Your task to perform on an android device: Go to display settings Image 0: 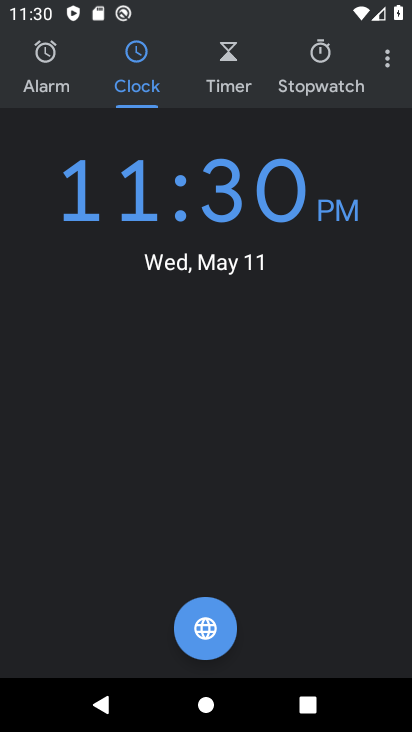
Step 0: press home button
Your task to perform on an android device: Go to display settings Image 1: 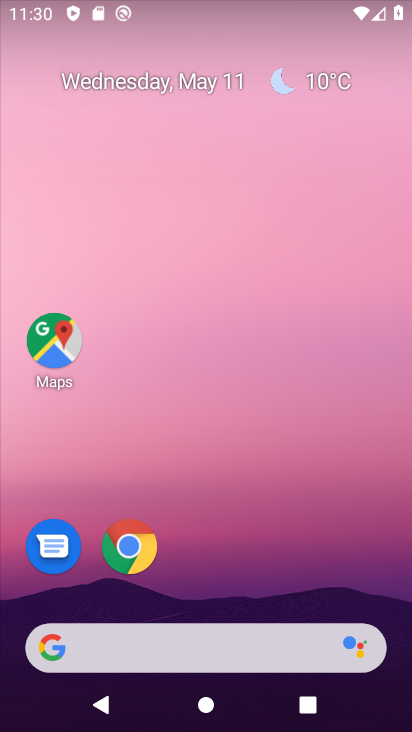
Step 1: drag from (238, 594) to (362, 19)
Your task to perform on an android device: Go to display settings Image 2: 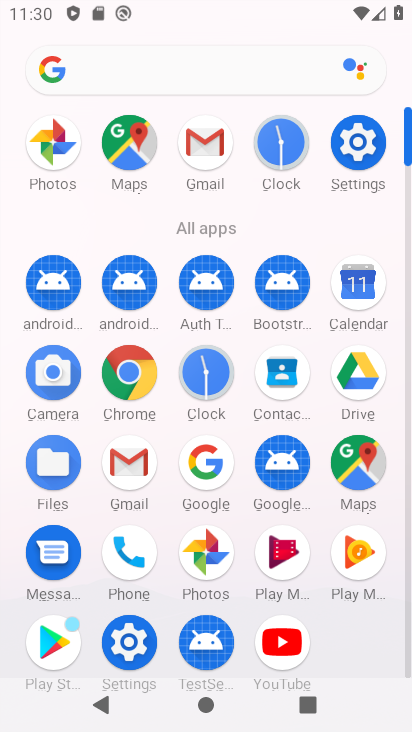
Step 2: click (352, 147)
Your task to perform on an android device: Go to display settings Image 3: 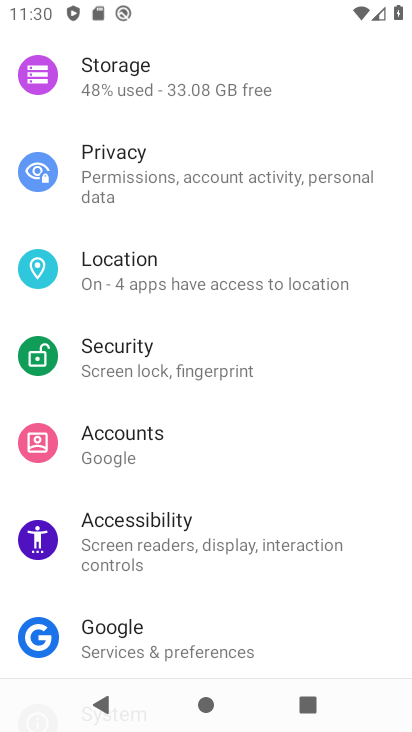
Step 3: drag from (245, 179) to (326, 604)
Your task to perform on an android device: Go to display settings Image 4: 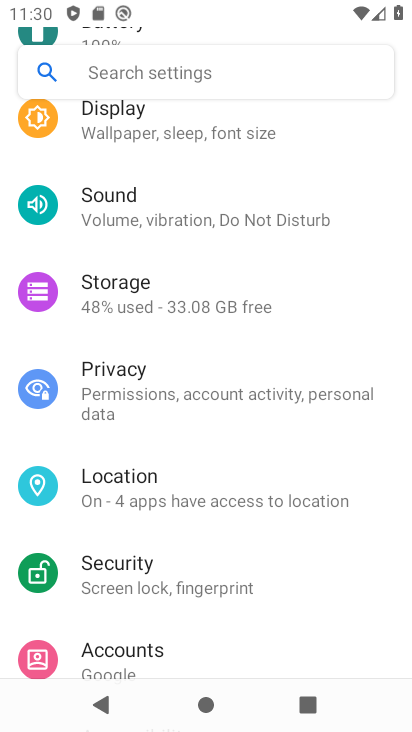
Step 4: click (183, 125)
Your task to perform on an android device: Go to display settings Image 5: 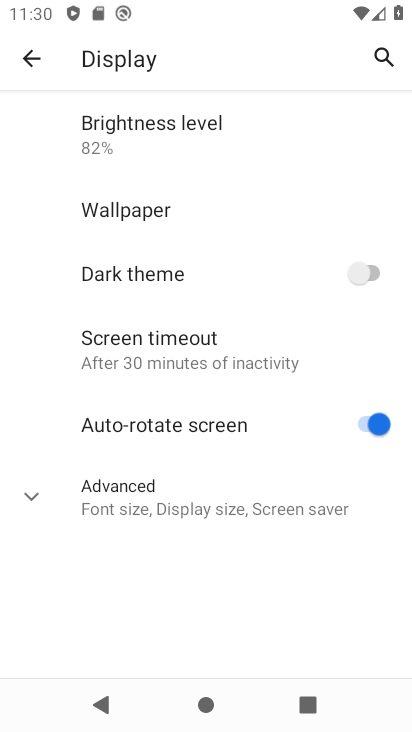
Step 5: task complete